Your task to perform on an android device: Open location settings Image 0: 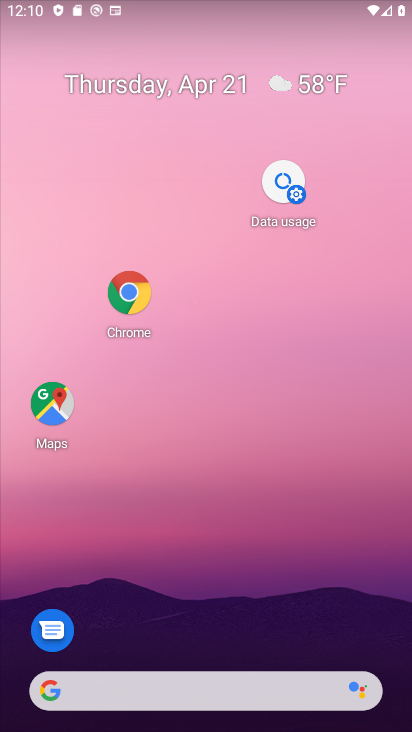
Step 0: drag from (186, 660) to (176, 200)
Your task to perform on an android device: Open location settings Image 1: 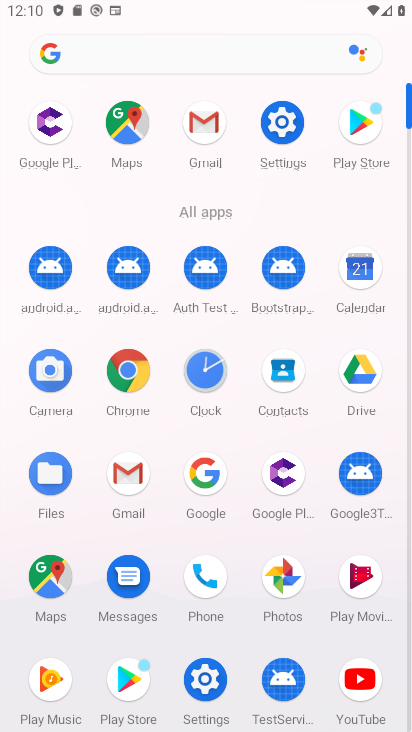
Step 1: click (277, 123)
Your task to perform on an android device: Open location settings Image 2: 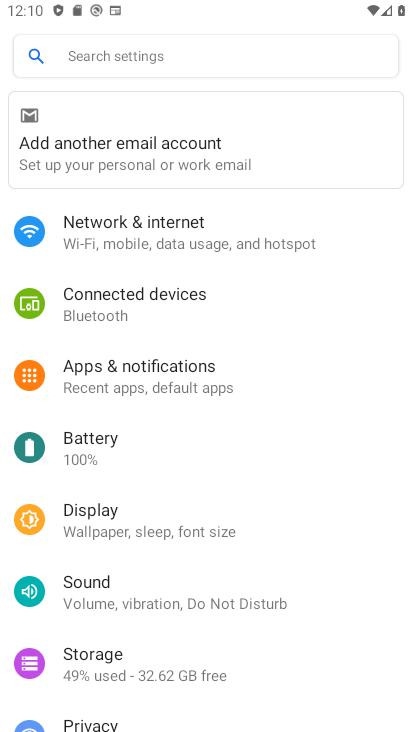
Step 2: drag from (124, 703) to (123, 307)
Your task to perform on an android device: Open location settings Image 3: 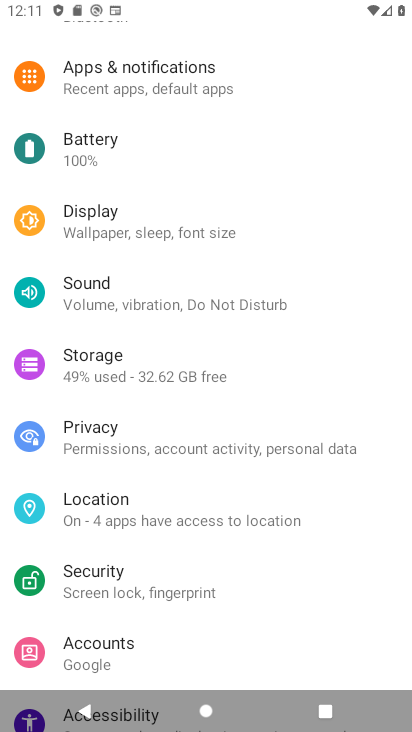
Step 3: click (145, 503)
Your task to perform on an android device: Open location settings Image 4: 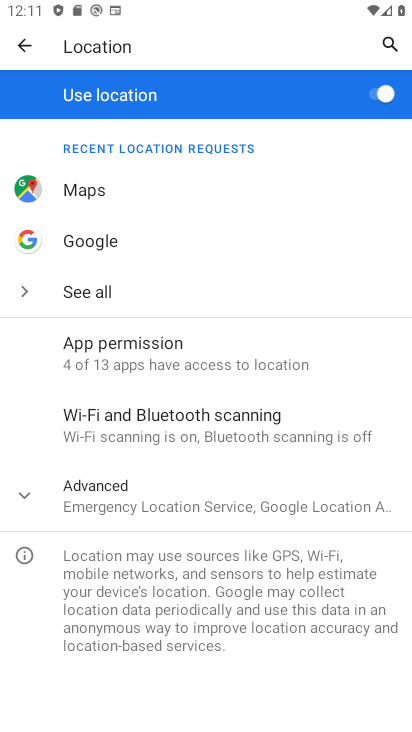
Step 4: click (136, 497)
Your task to perform on an android device: Open location settings Image 5: 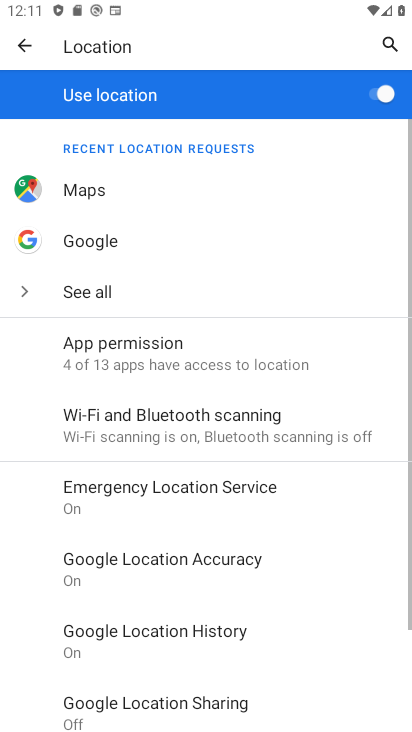
Step 5: task complete